Your task to perform on an android device: Is it going to rain today? Image 0: 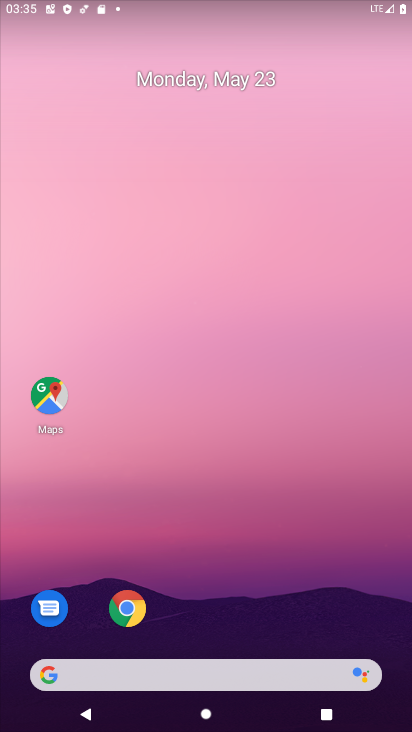
Step 0: drag from (248, 633) to (198, 258)
Your task to perform on an android device: Is it going to rain today? Image 1: 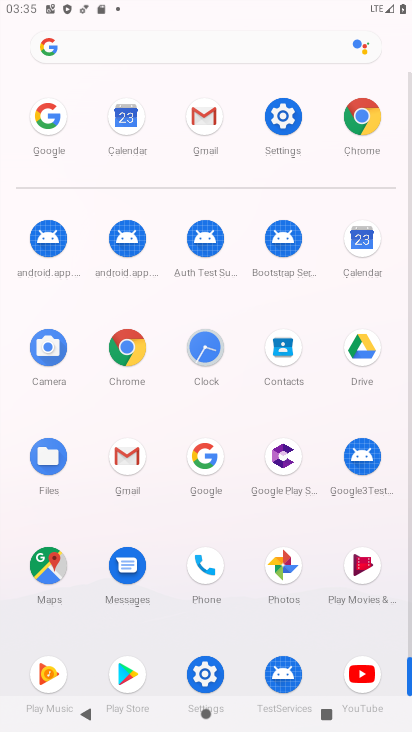
Step 1: click (45, 118)
Your task to perform on an android device: Is it going to rain today? Image 2: 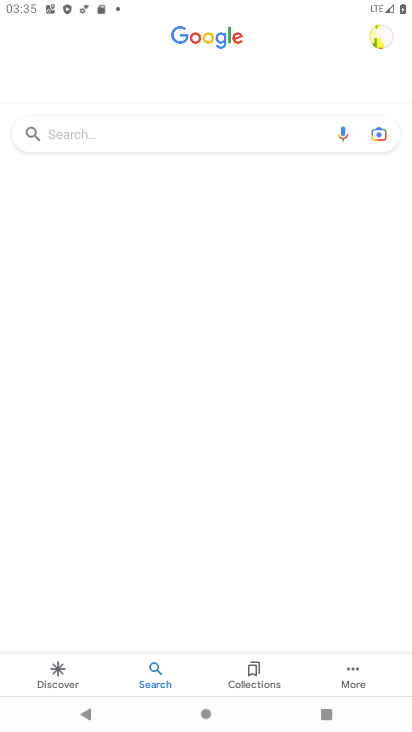
Step 2: click (86, 131)
Your task to perform on an android device: Is it going to rain today? Image 3: 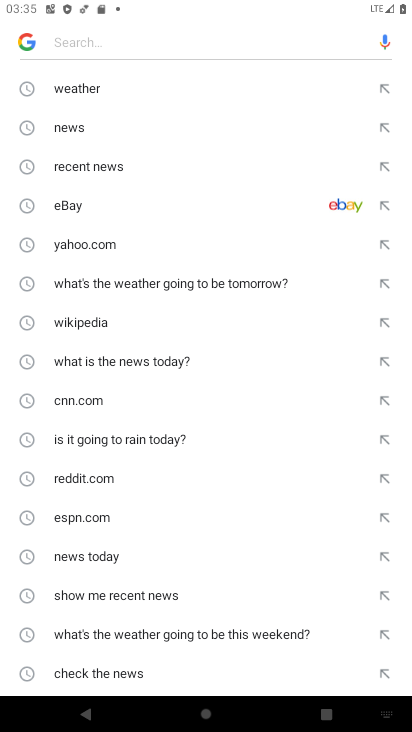
Step 3: type "Is it going to rain today"
Your task to perform on an android device: Is it going to rain today? Image 4: 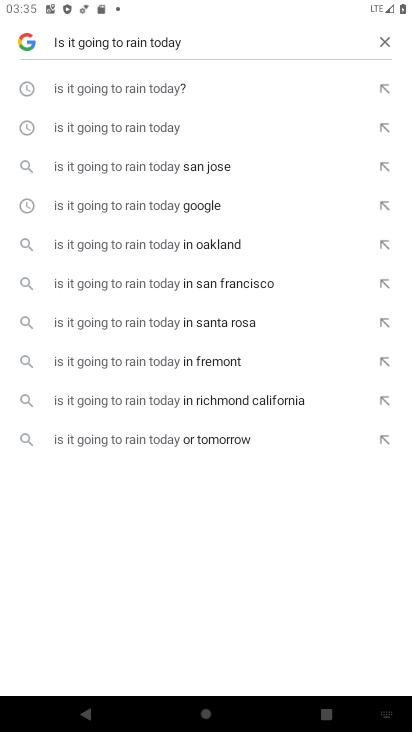
Step 4: click (155, 92)
Your task to perform on an android device: Is it going to rain today? Image 5: 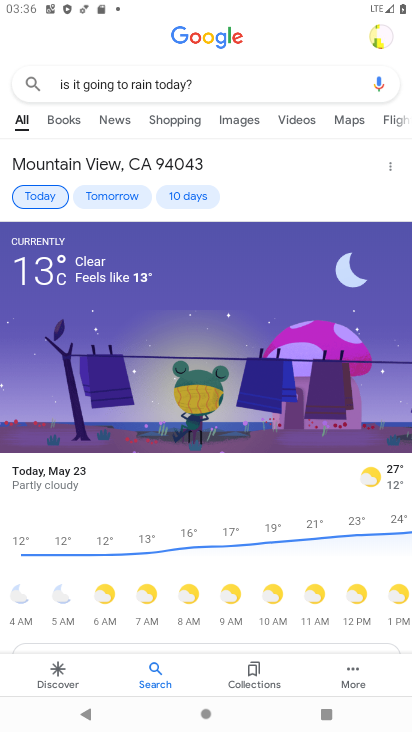
Step 5: task complete